Your task to perform on an android device: empty trash in google photos Image 0: 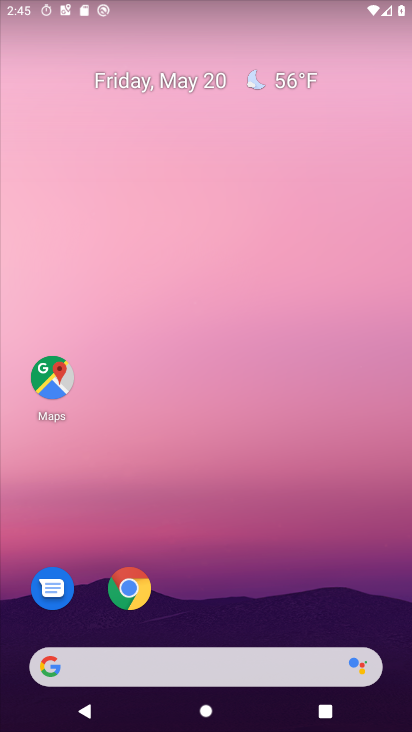
Step 0: drag from (25, 602) to (309, 194)
Your task to perform on an android device: empty trash in google photos Image 1: 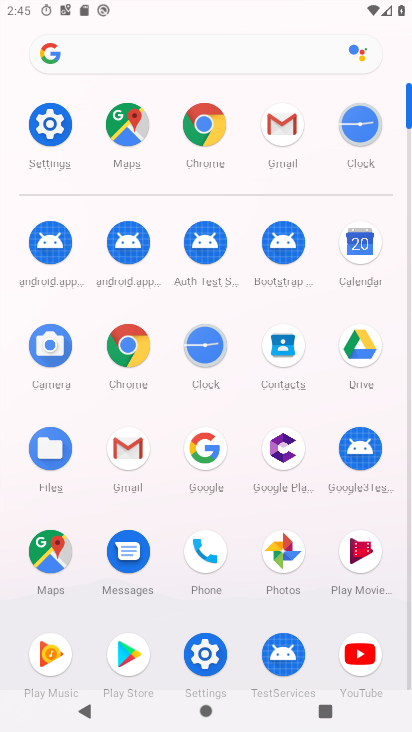
Step 1: click (276, 551)
Your task to perform on an android device: empty trash in google photos Image 2: 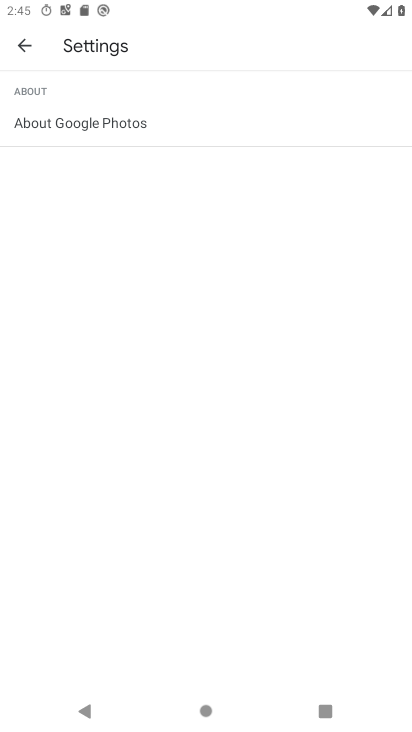
Step 2: press back button
Your task to perform on an android device: empty trash in google photos Image 3: 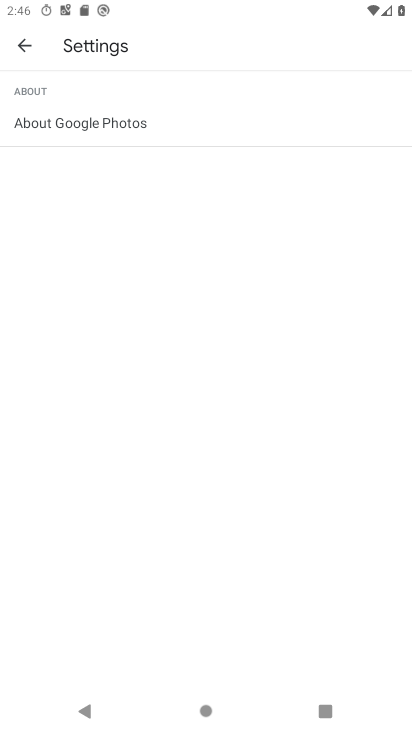
Step 3: press back button
Your task to perform on an android device: empty trash in google photos Image 4: 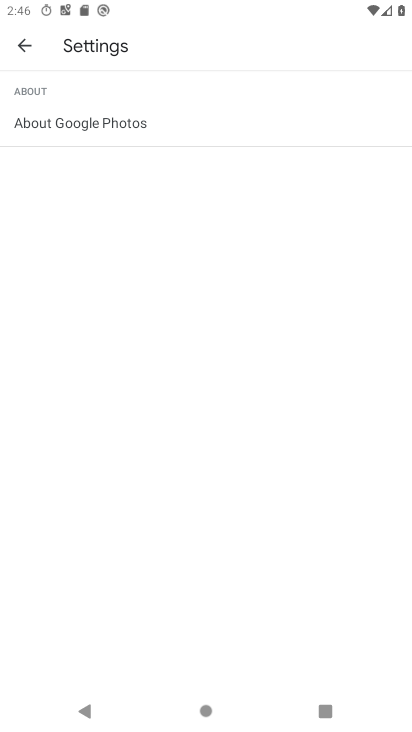
Step 4: press home button
Your task to perform on an android device: empty trash in google photos Image 5: 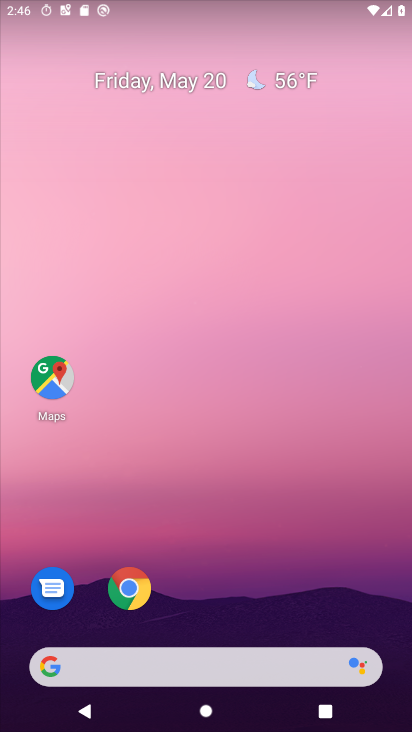
Step 5: drag from (26, 589) to (237, 191)
Your task to perform on an android device: empty trash in google photos Image 6: 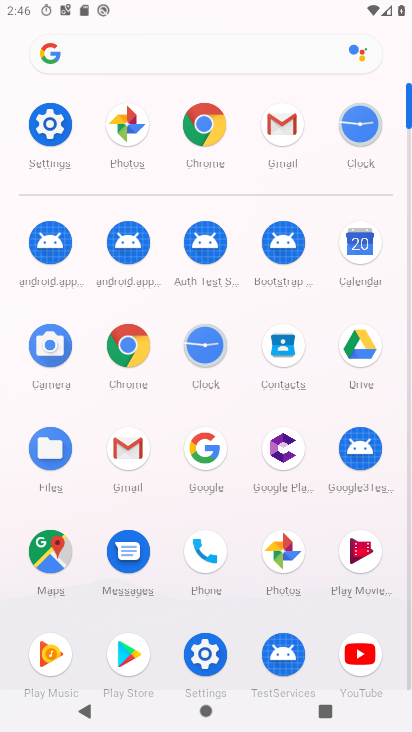
Step 6: click (119, 133)
Your task to perform on an android device: empty trash in google photos Image 7: 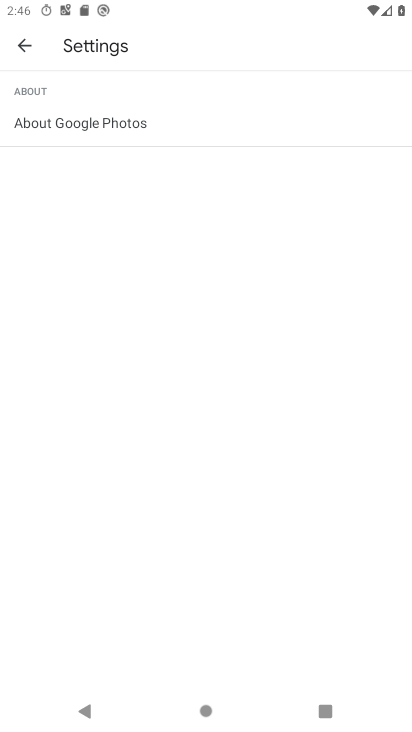
Step 7: press back button
Your task to perform on an android device: empty trash in google photos Image 8: 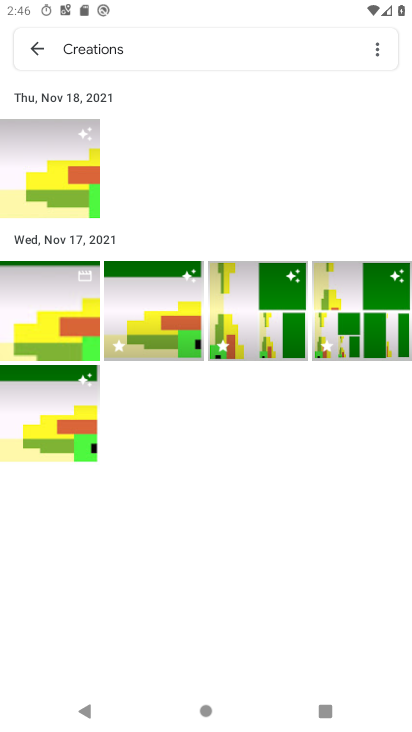
Step 8: click (36, 55)
Your task to perform on an android device: empty trash in google photos Image 9: 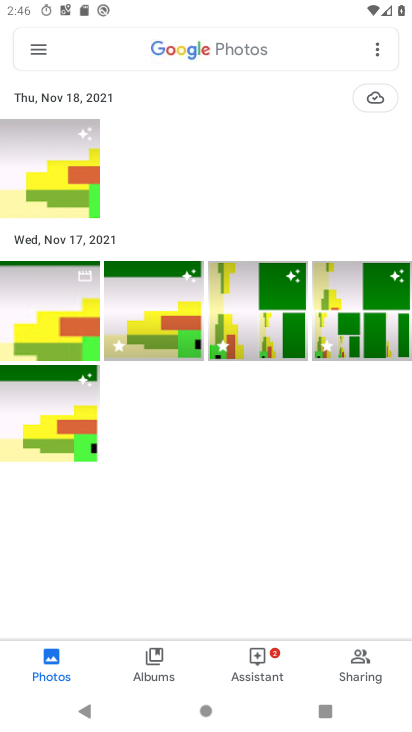
Step 9: click (46, 45)
Your task to perform on an android device: empty trash in google photos Image 10: 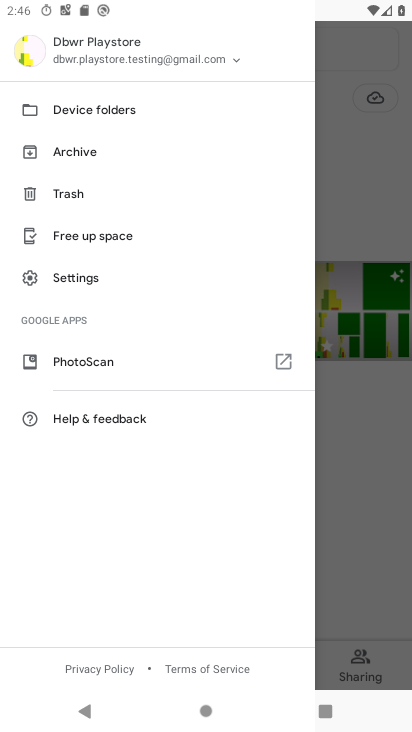
Step 10: click (53, 210)
Your task to perform on an android device: empty trash in google photos Image 11: 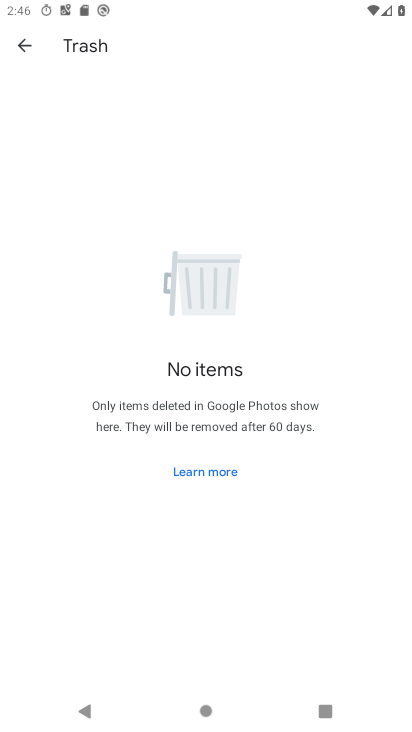
Step 11: task complete